Your task to perform on an android device: check battery use Image 0: 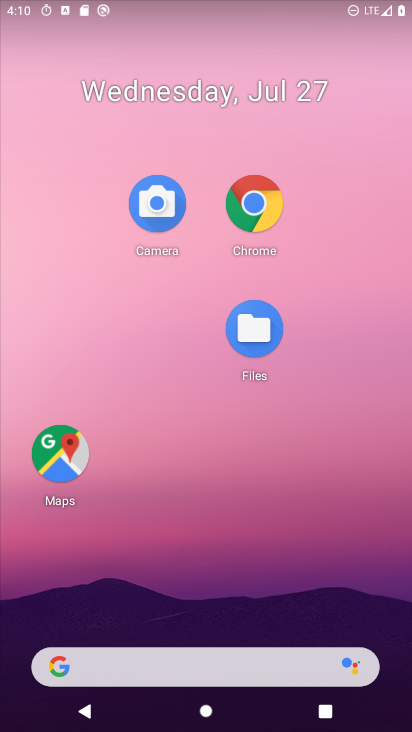
Step 0: drag from (198, 606) to (222, 71)
Your task to perform on an android device: check battery use Image 1: 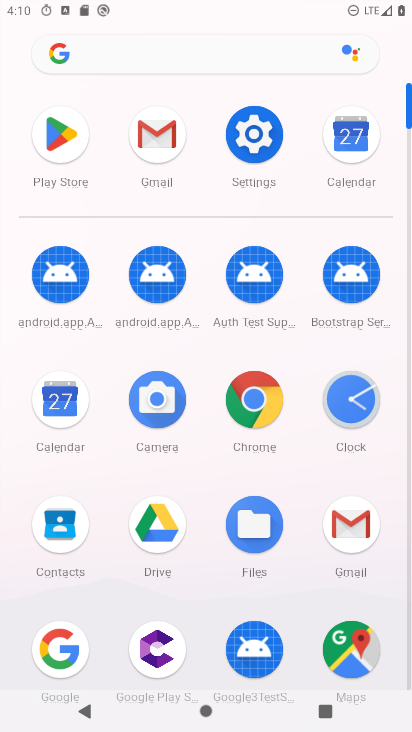
Step 1: click (249, 111)
Your task to perform on an android device: check battery use Image 2: 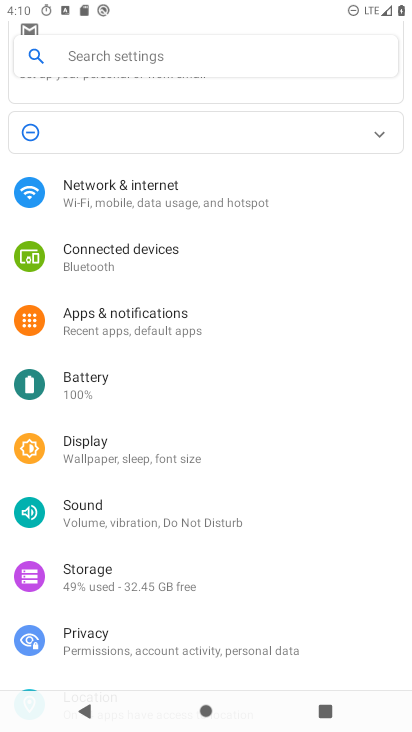
Step 2: click (120, 388)
Your task to perform on an android device: check battery use Image 3: 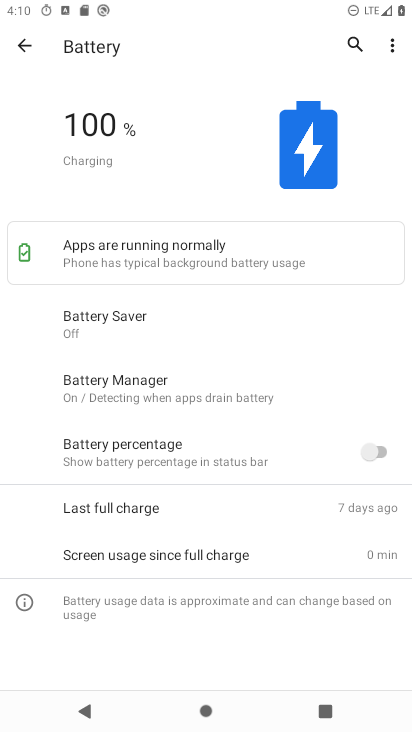
Step 3: click (390, 47)
Your task to perform on an android device: check battery use Image 4: 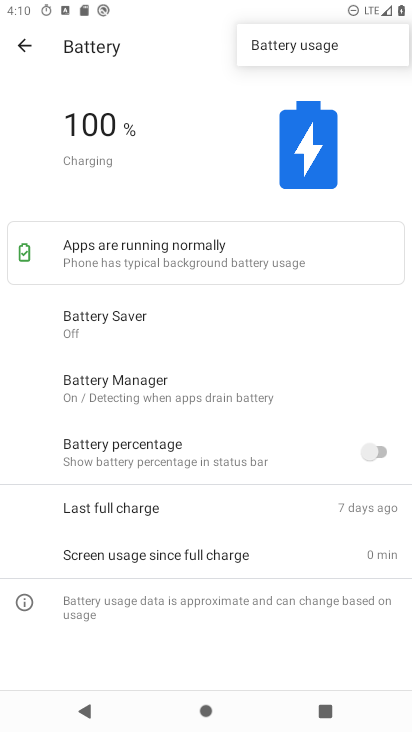
Step 4: click (267, 50)
Your task to perform on an android device: check battery use Image 5: 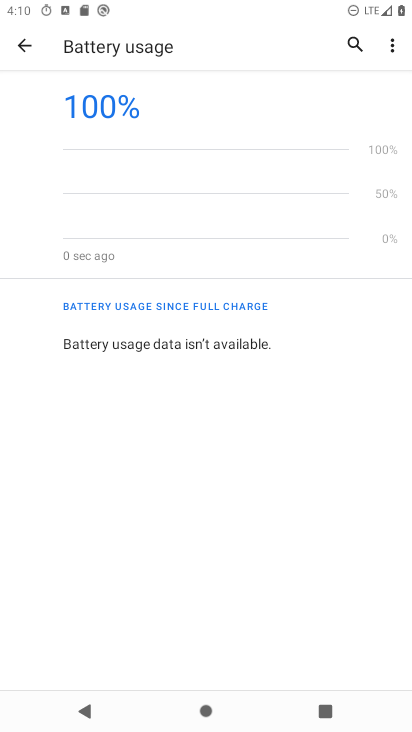
Step 5: task complete